Your task to perform on an android device: Go to Yahoo.com Image 0: 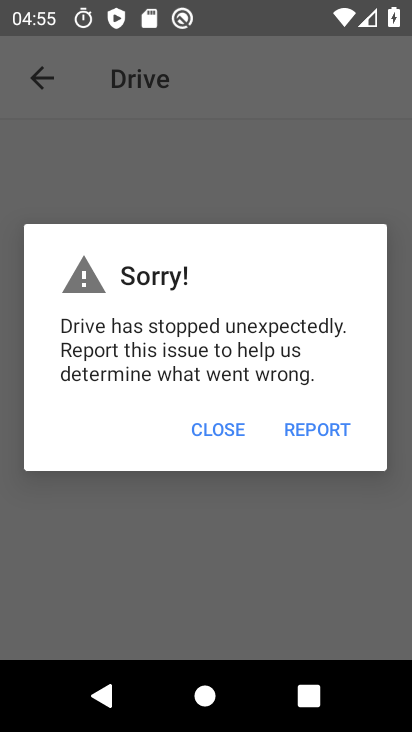
Step 0: press home button
Your task to perform on an android device: Go to Yahoo.com Image 1: 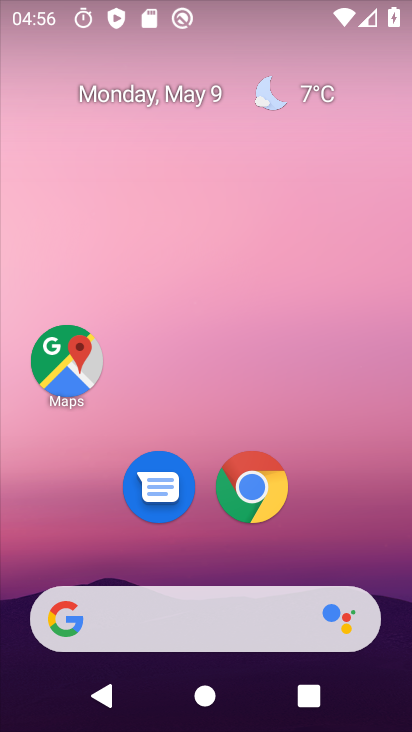
Step 1: click (166, 627)
Your task to perform on an android device: Go to Yahoo.com Image 2: 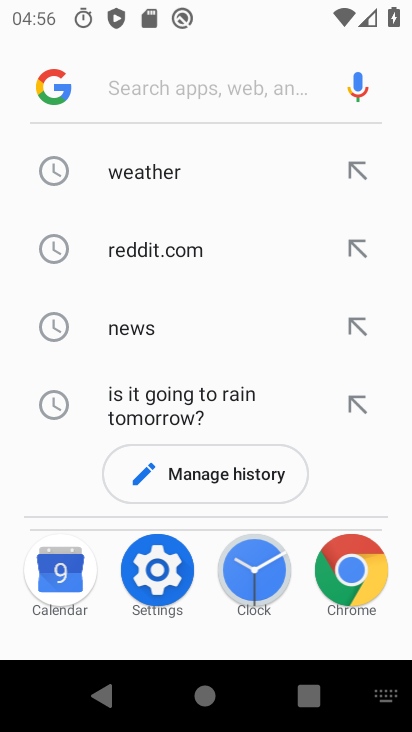
Step 2: type "Yahoo"
Your task to perform on an android device: Go to Yahoo.com Image 3: 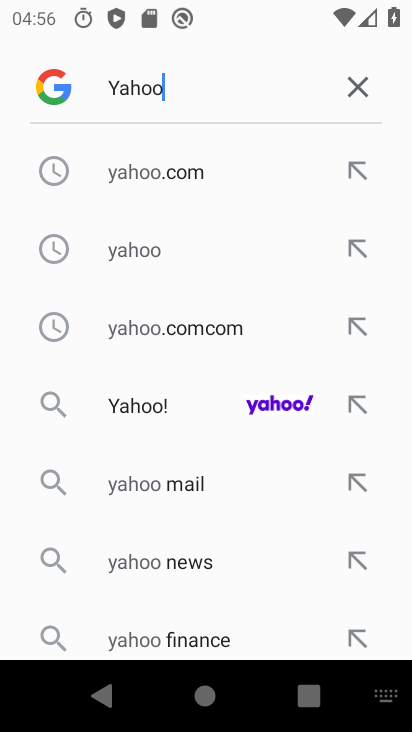
Step 3: click (140, 180)
Your task to perform on an android device: Go to Yahoo.com Image 4: 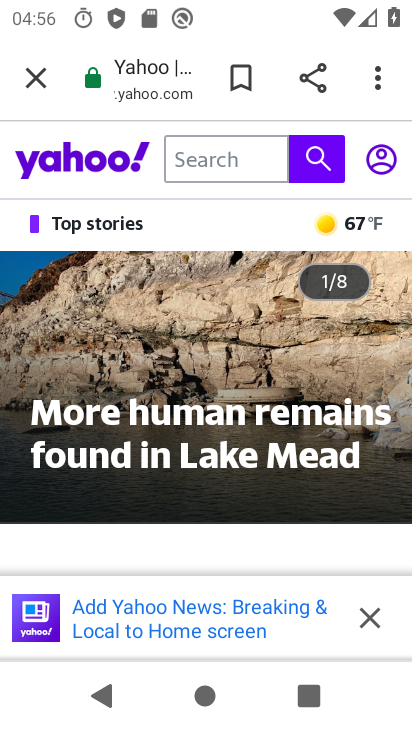
Step 4: task complete